Your task to perform on an android device: Search for sushi restaurants on Maps Image 0: 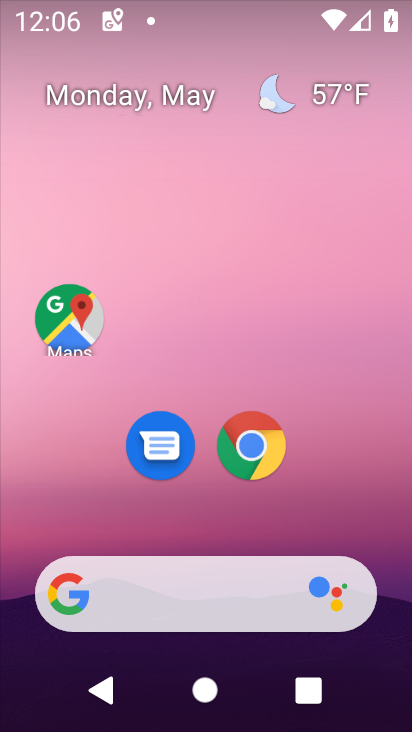
Step 0: click (275, 462)
Your task to perform on an android device: Search for sushi restaurants on Maps Image 1: 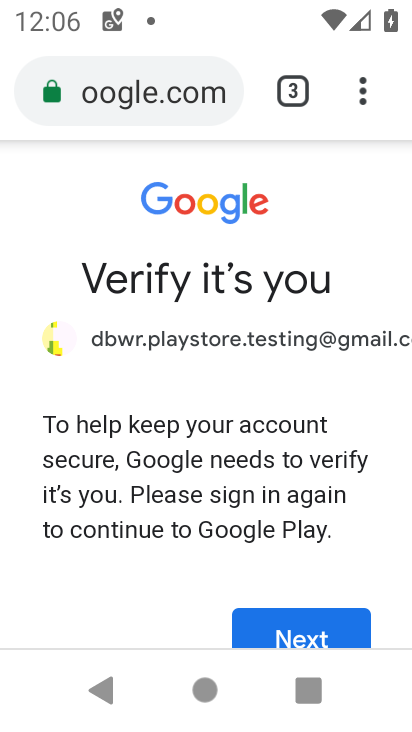
Step 1: click (189, 88)
Your task to perform on an android device: Search for sushi restaurants on Maps Image 2: 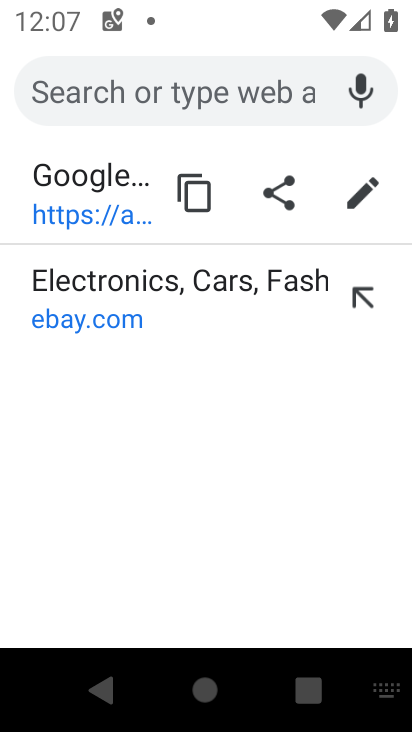
Step 2: type "sushi restaurant"
Your task to perform on an android device: Search for sushi restaurants on Maps Image 3: 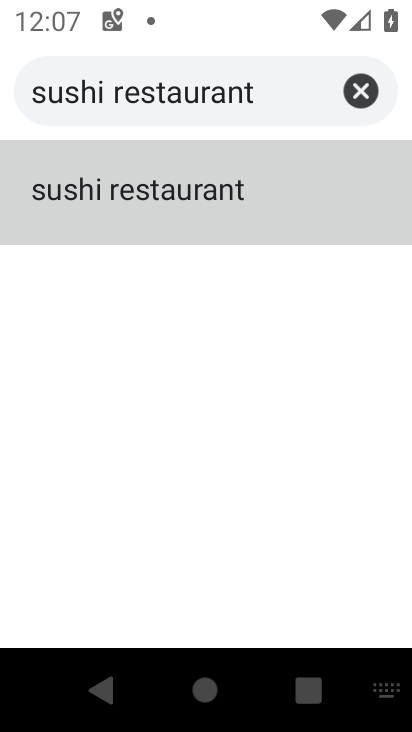
Step 3: click (225, 196)
Your task to perform on an android device: Search for sushi restaurants on Maps Image 4: 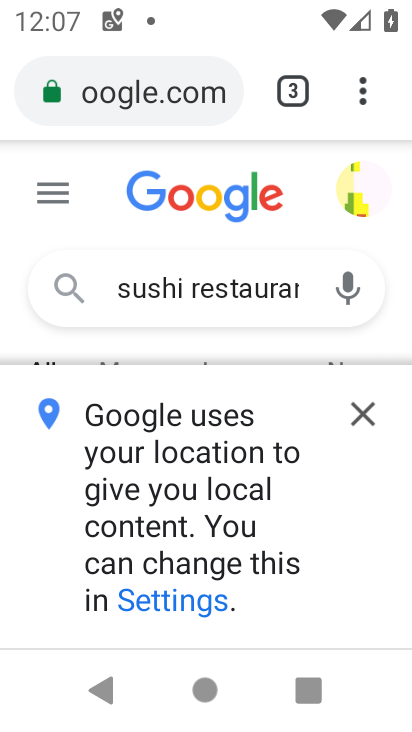
Step 4: click (359, 411)
Your task to perform on an android device: Search for sushi restaurants on Maps Image 5: 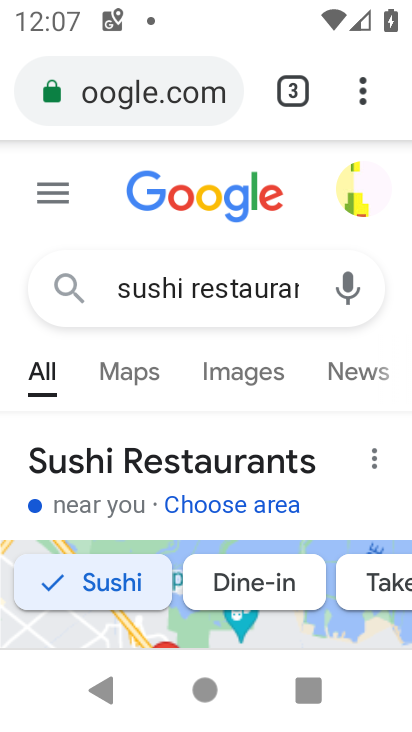
Step 5: drag from (324, 607) to (295, 305)
Your task to perform on an android device: Search for sushi restaurants on Maps Image 6: 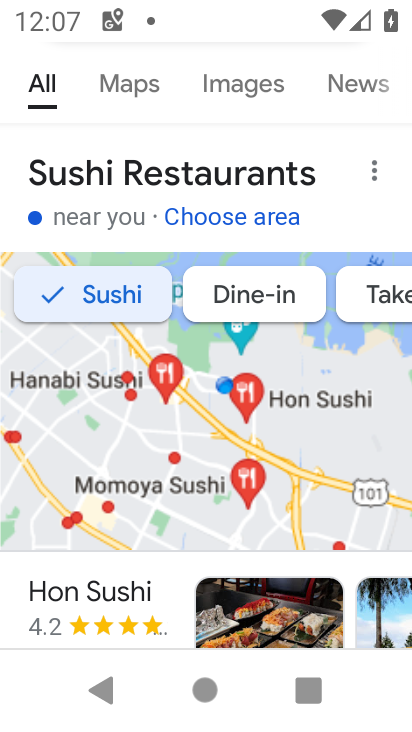
Step 6: press home button
Your task to perform on an android device: Search for sushi restaurants on Maps Image 7: 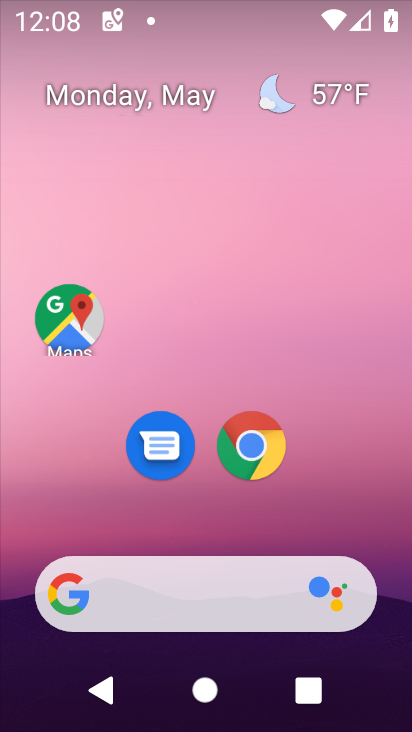
Step 7: click (60, 329)
Your task to perform on an android device: Search for sushi restaurants on Maps Image 8: 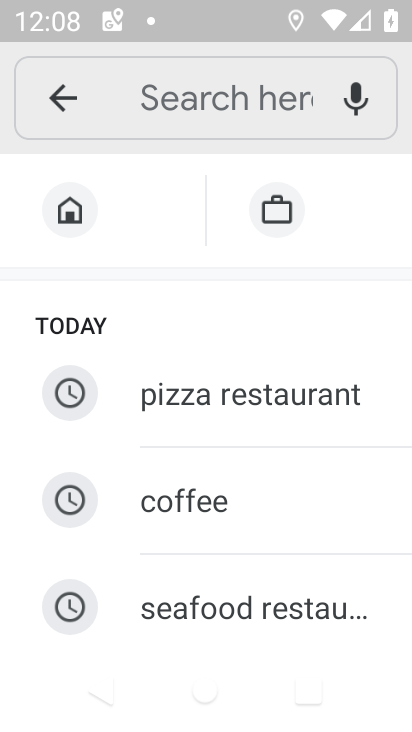
Step 8: click (297, 267)
Your task to perform on an android device: Search for sushi restaurants on Maps Image 9: 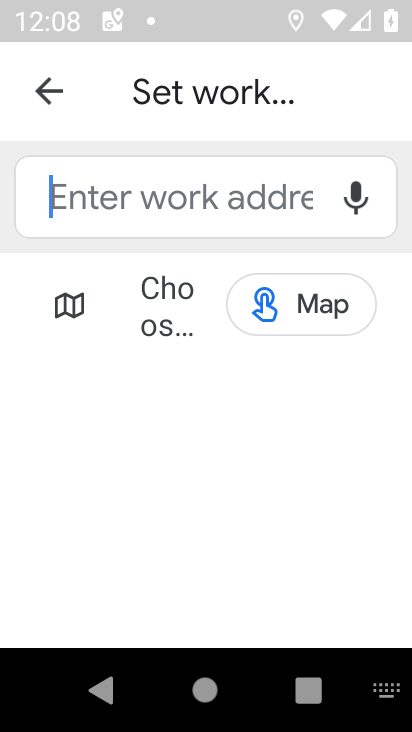
Step 9: press back button
Your task to perform on an android device: Search for sushi restaurants on Maps Image 10: 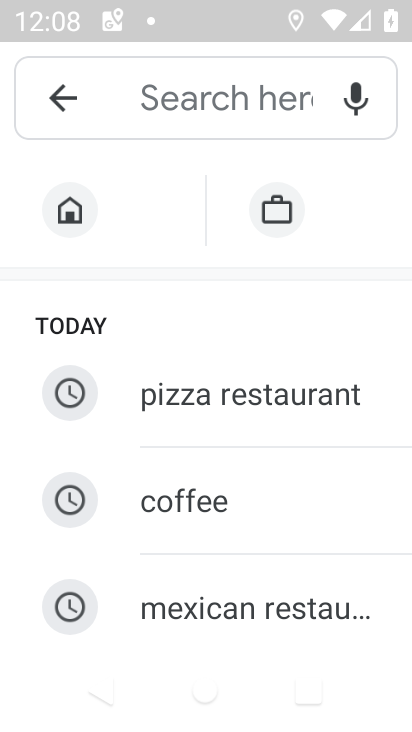
Step 10: click (176, 91)
Your task to perform on an android device: Search for sushi restaurants on Maps Image 11: 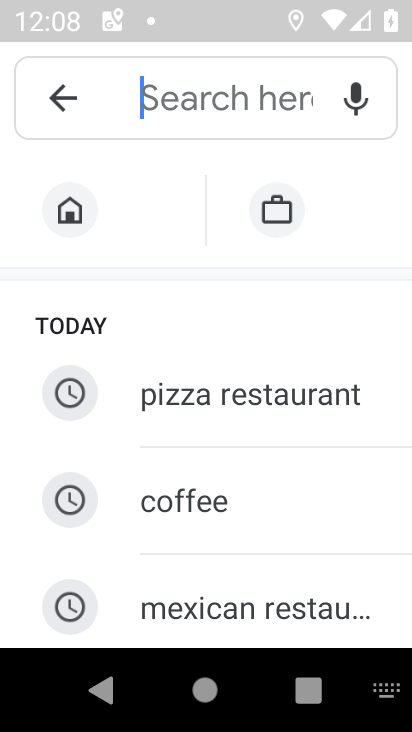
Step 11: type "sushi restaurant"
Your task to perform on an android device: Search for sushi restaurants on Maps Image 12: 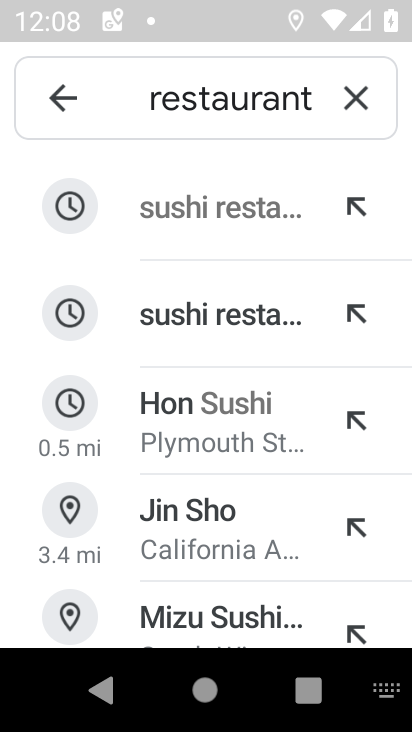
Step 12: click (226, 191)
Your task to perform on an android device: Search for sushi restaurants on Maps Image 13: 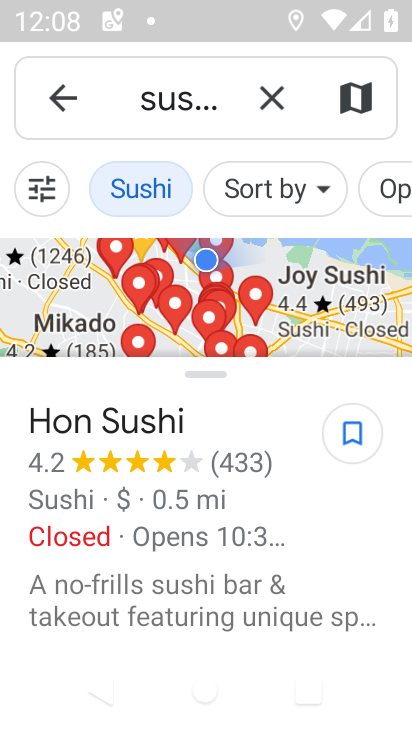
Step 13: task complete